Your task to perform on an android device: manage bookmarks in the chrome app Image 0: 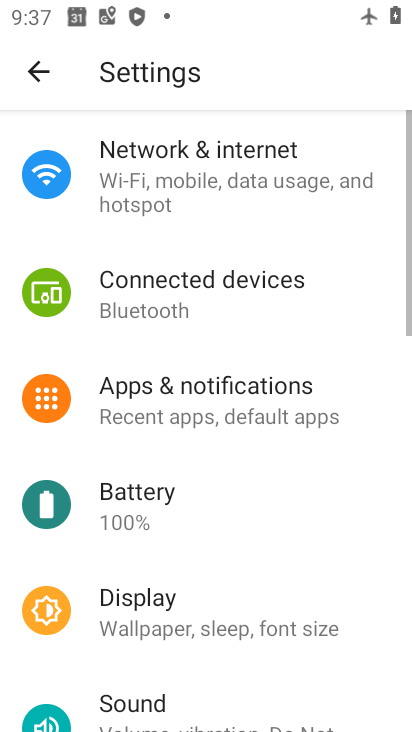
Step 0: press home button
Your task to perform on an android device: manage bookmarks in the chrome app Image 1: 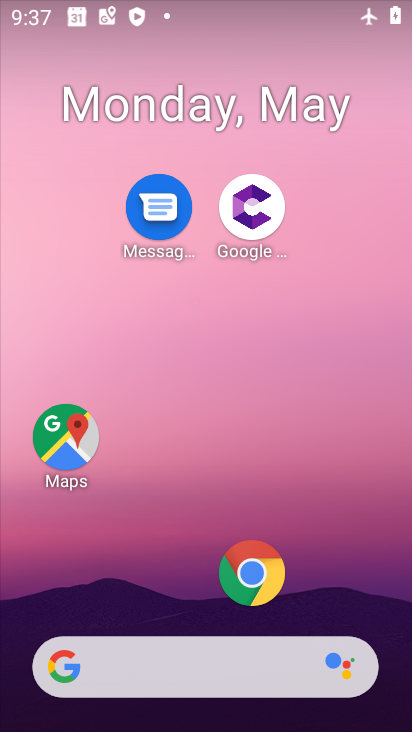
Step 1: drag from (158, 658) to (247, 133)
Your task to perform on an android device: manage bookmarks in the chrome app Image 2: 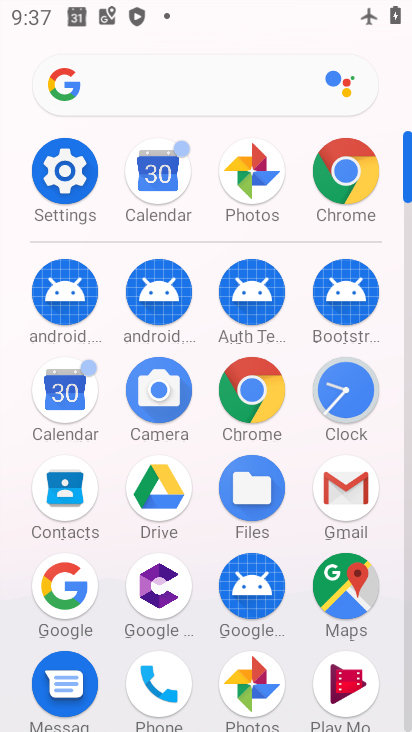
Step 2: click (354, 182)
Your task to perform on an android device: manage bookmarks in the chrome app Image 3: 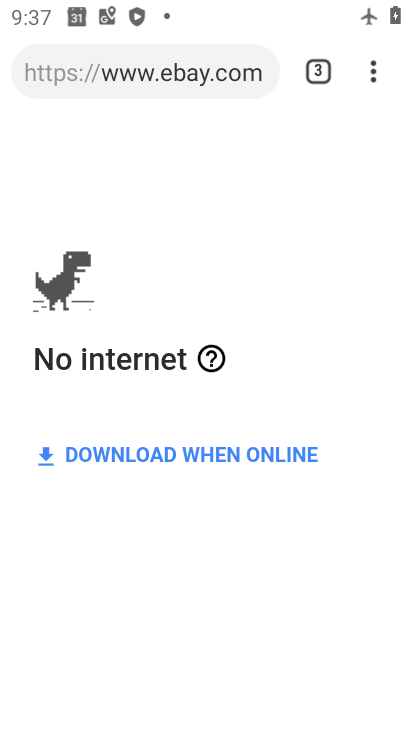
Step 3: click (375, 78)
Your task to perform on an android device: manage bookmarks in the chrome app Image 4: 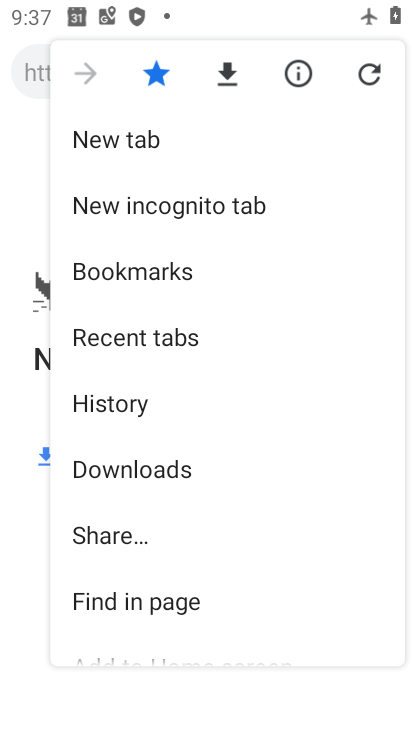
Step 4: click (154, 286)
Your task to perform on an android device: manage bookmarks in the chrome app Image 5: 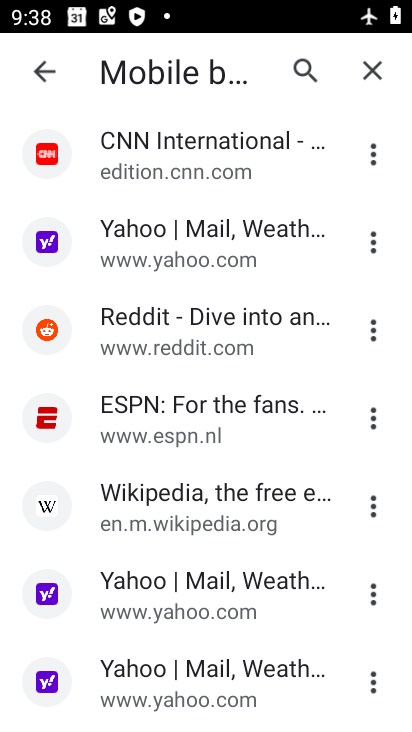
Step 5: task complete